Your task to perform on an android device: Go to eBay Image 0: 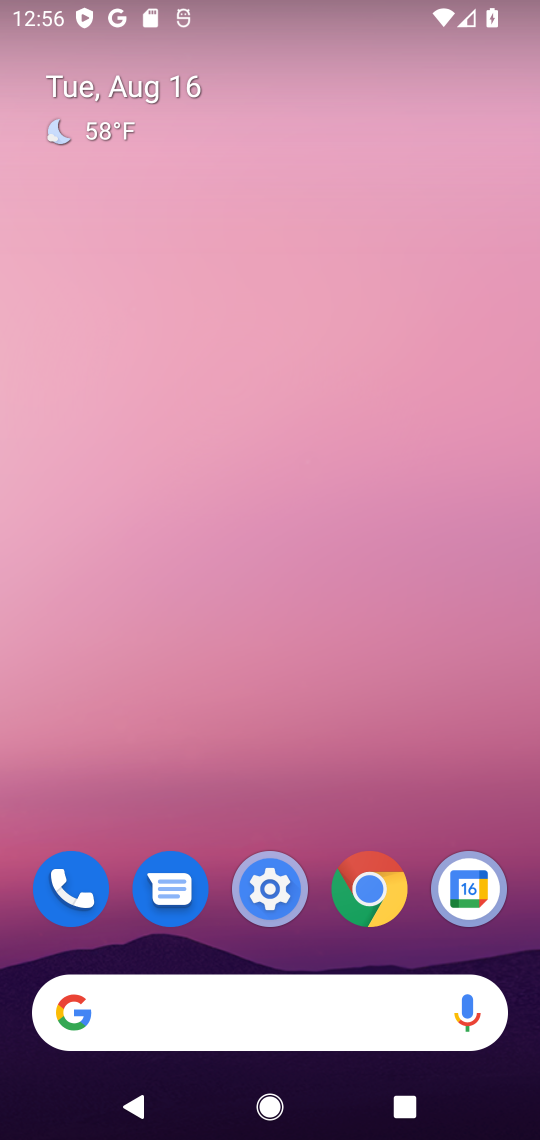
Step 0: drag from (152, 907) to (355, 3)
Your task to perform on an android device: Go to eBay Image 1: 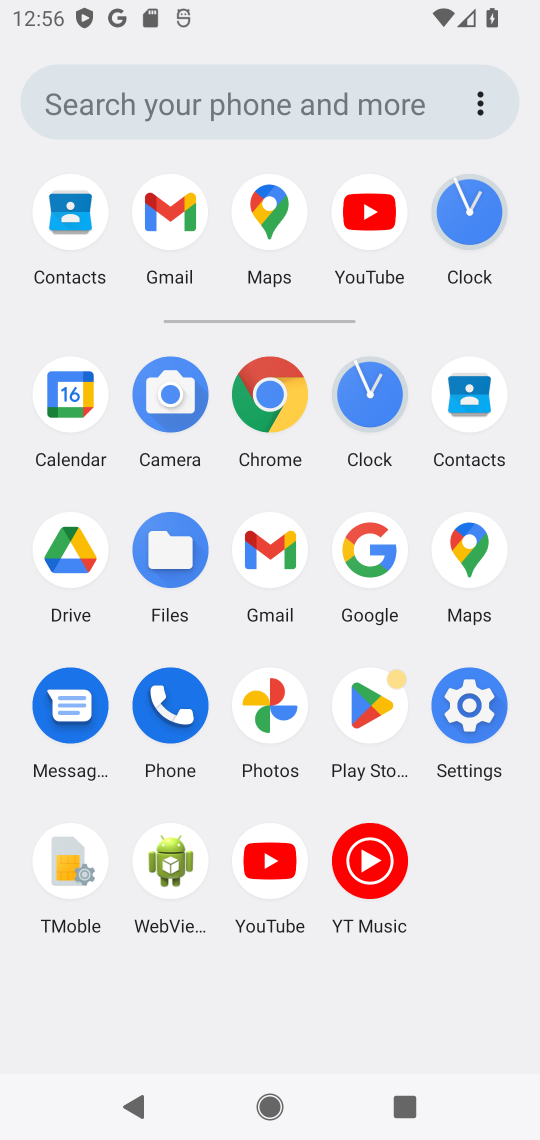
Step 1: click (251, 408)
Your task to perform on an android device: Go to eBay Image 2: 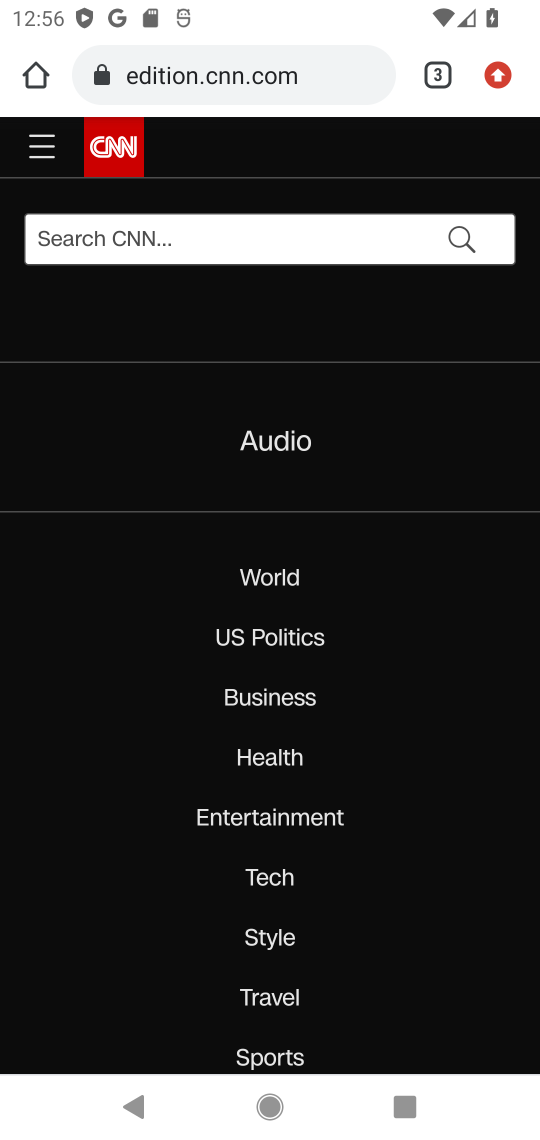
Step 2: click (255, 79)
Your task to perform on an android device: Go to eBay Image 3: 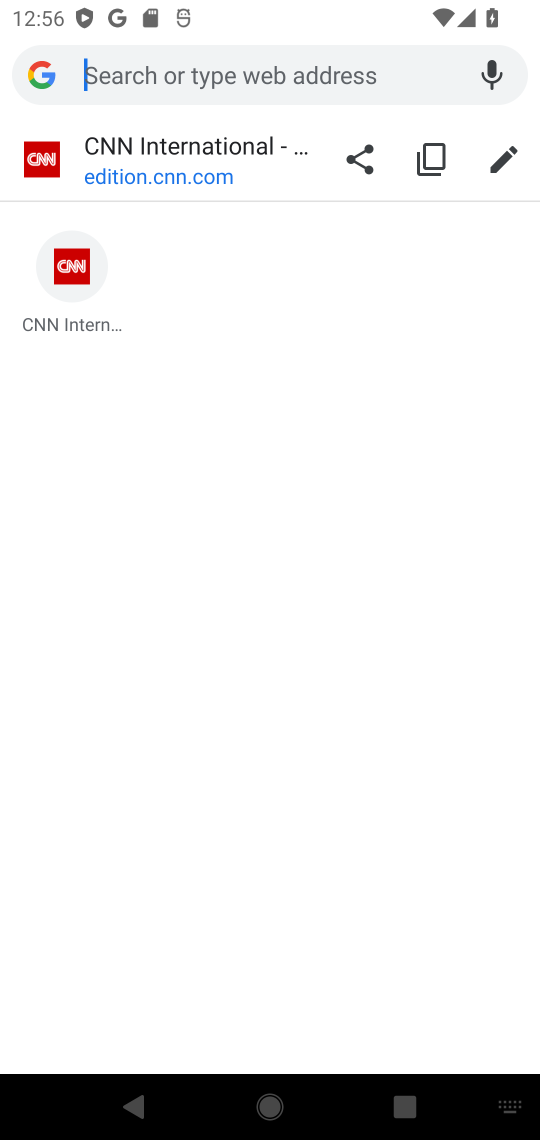
Step 3: type "eBay"
Your task to perform on an android device: Go to eBay Image 4: 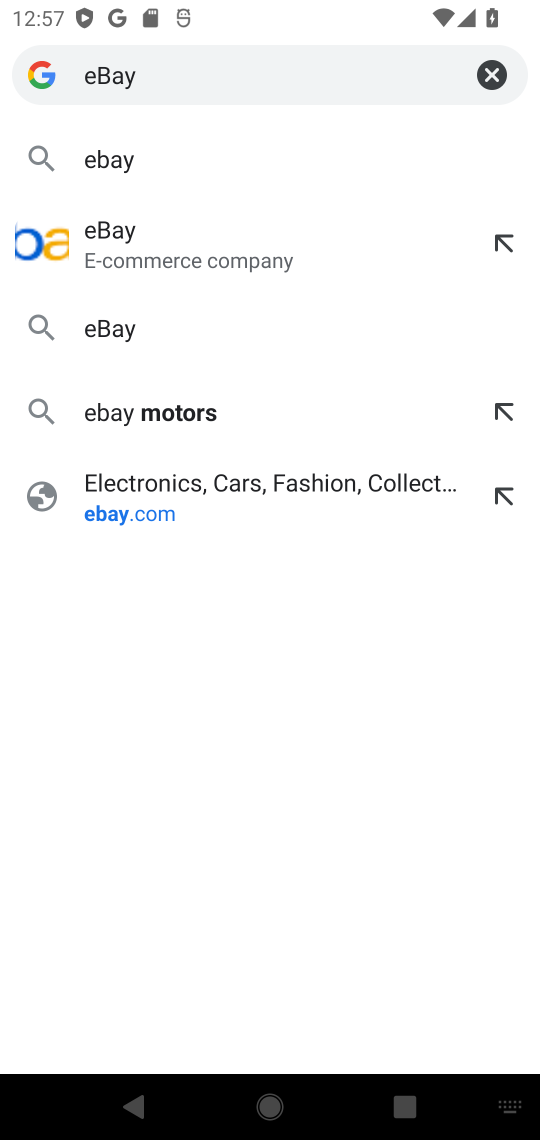
Step 4: click (82, 243)
Your task to perform on an android device: Go to eBay Image 5: 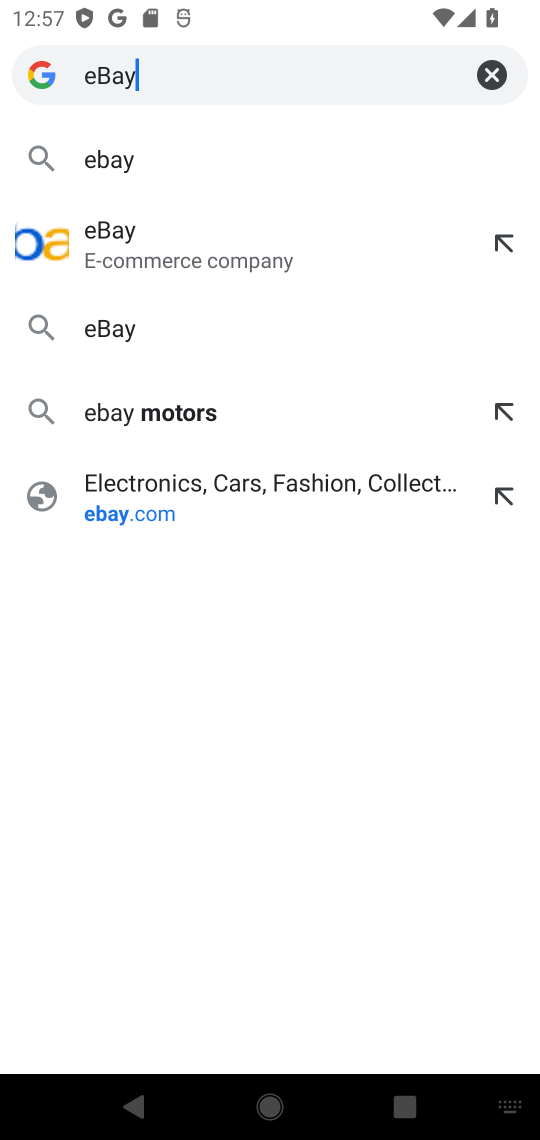
Step 5: click (135, 245)
Your task to perform on an android device: Go to eBay Image 6: 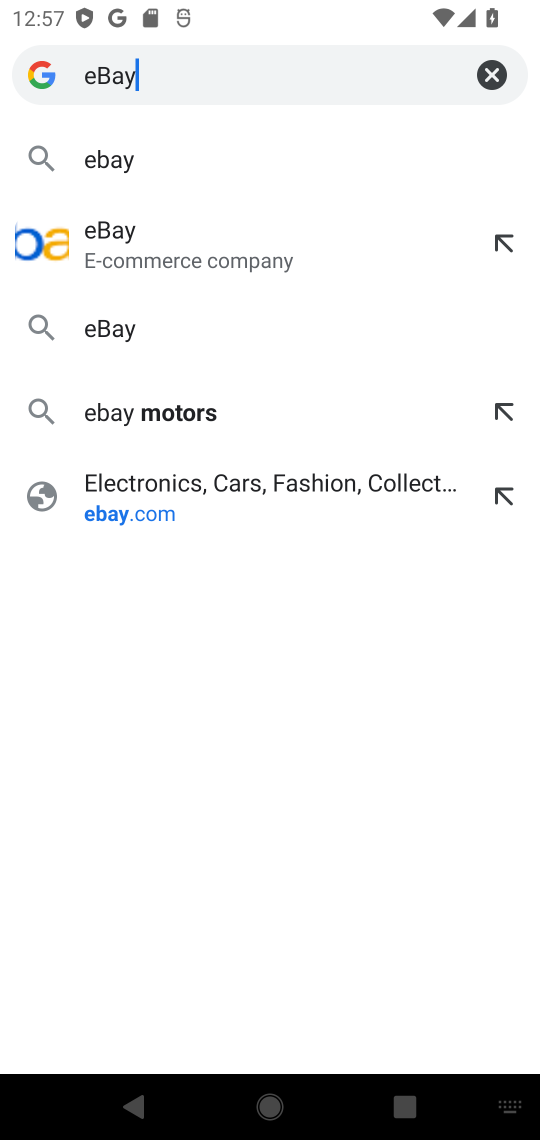
Step 6: click (108, 164)
Your task to perform on an android device: Go to eBay Image 7: 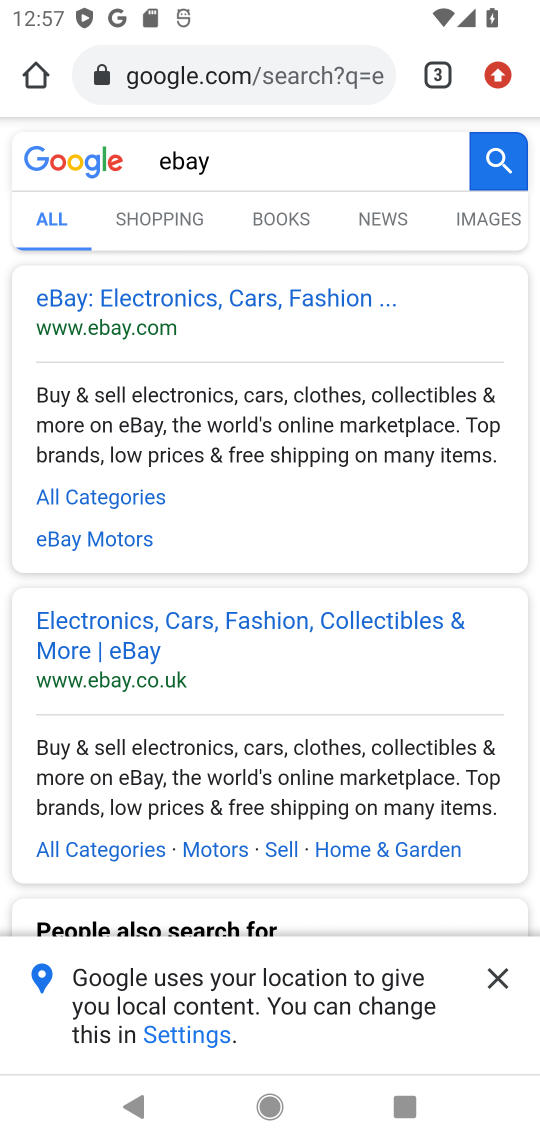
Step 7: click (74, 321)
Your task to perform on an android device: Go to eBay Image 8: 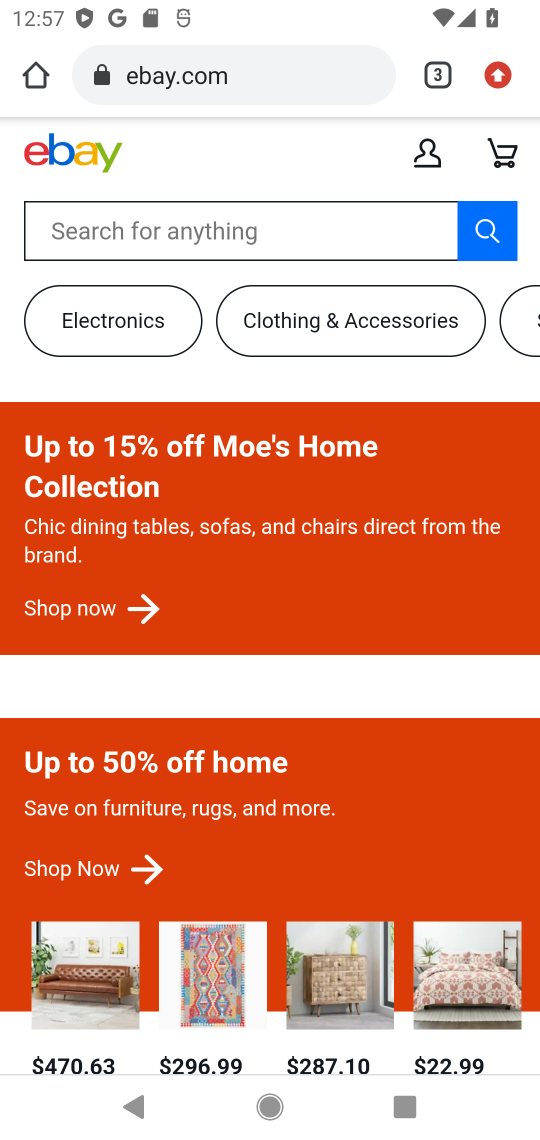
Step 8: task complete